Your task to perform on an android device: turn on wifi Image 0: 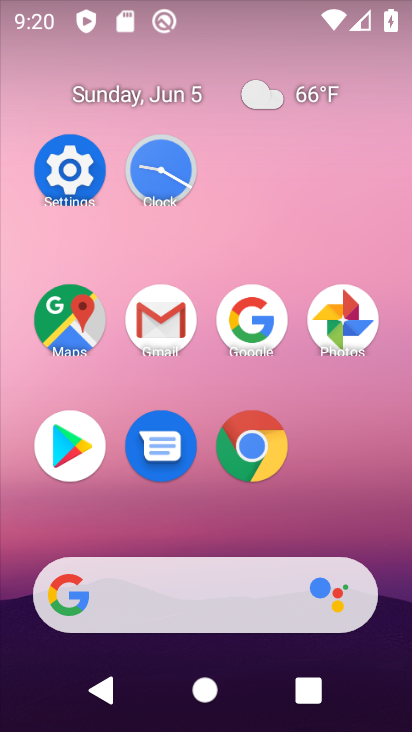
Step 0: click (92, 173)
Your task to perform on an android device: turn on wifi Image 1: 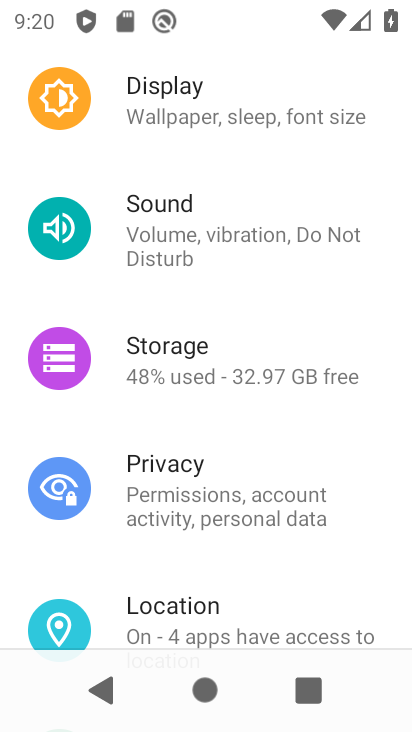
Step 1: drag from (288, 154) to (302, 533)
Your task to perform on an android device: turn on wifi Image 2: 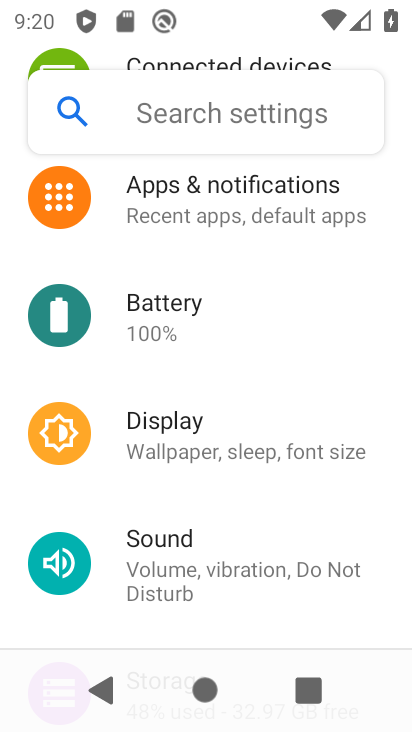
Step 2: drag from (267, 220) to (318, 485)
Your task to perform on an android device: turn on wifi Image 3: 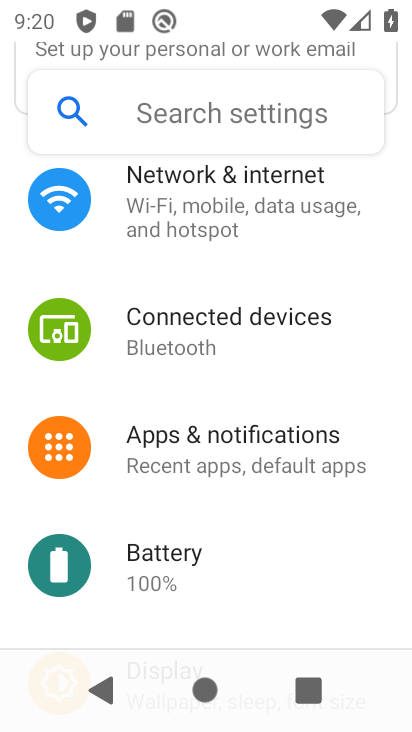
Step 3: click (204, 210)
Your task to perform on an android device: turn on wifi Image 4: 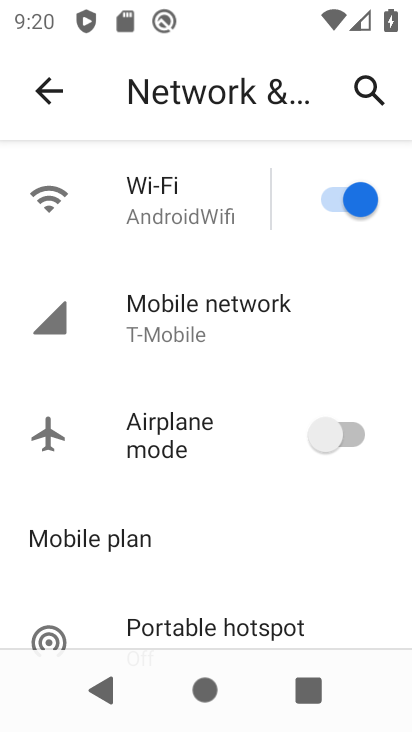
Step 4: task complete